Your task to perform on an android device: set the stopwatch Image 0: 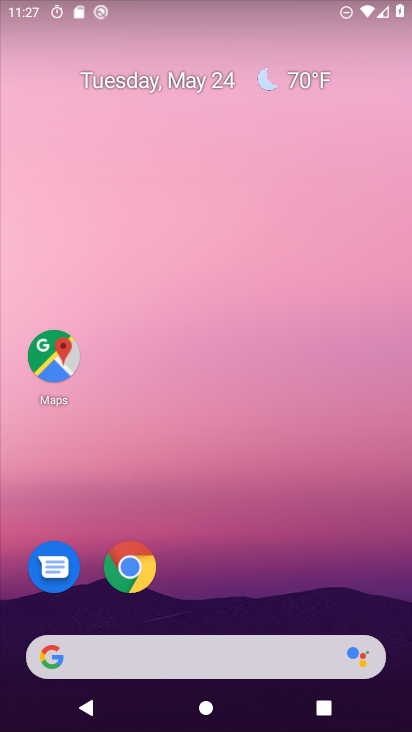
Step 0: drag from (397, 680) to (332, 178)
Your task to perform on an android device: set the stopwatch Image 1: 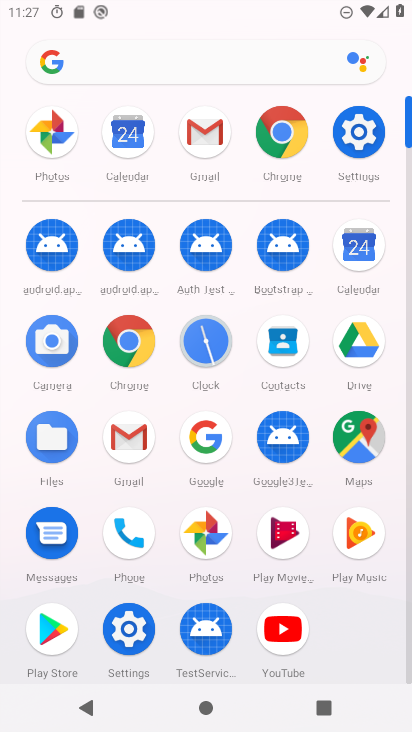
Step 1: click (362, 130)
Your task to perform on an android device: set the stopwatch Image 2: 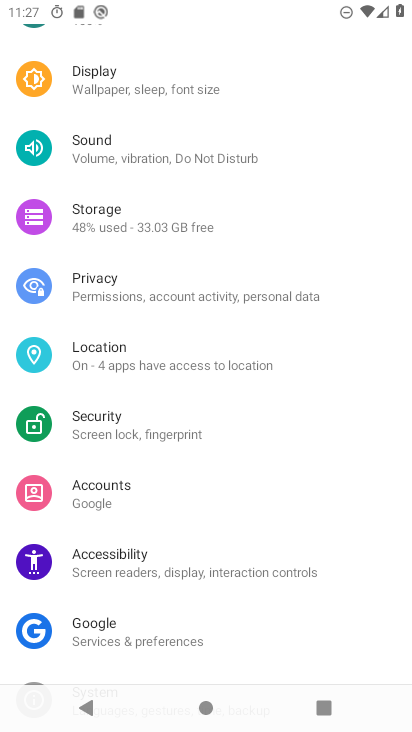
Step 2: press back button
Your task to perform on an android device: set the stopwatch Image 3: 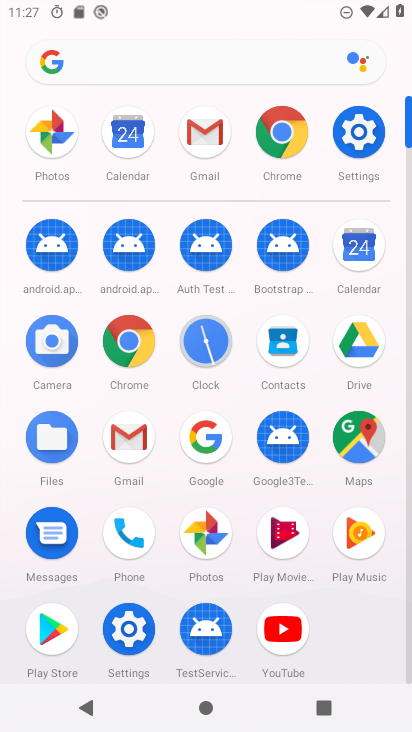
Step 3: click (199, 336)
Your task to perform on an android device: set the stopwatch Image 4: 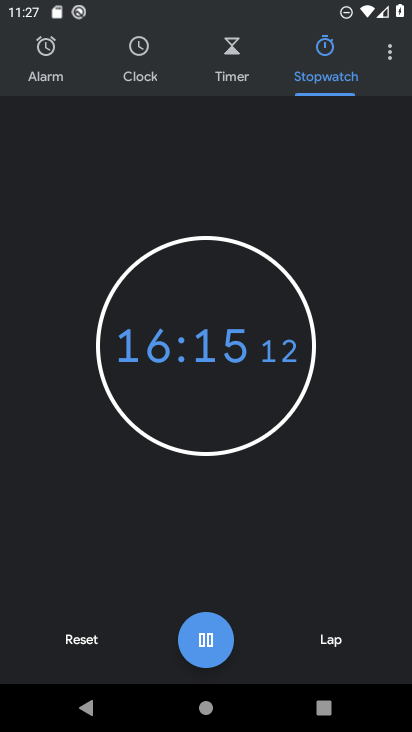
Step 4: click (93, 638)
Your task to perform on an android device: set the stopwatch Image 5: 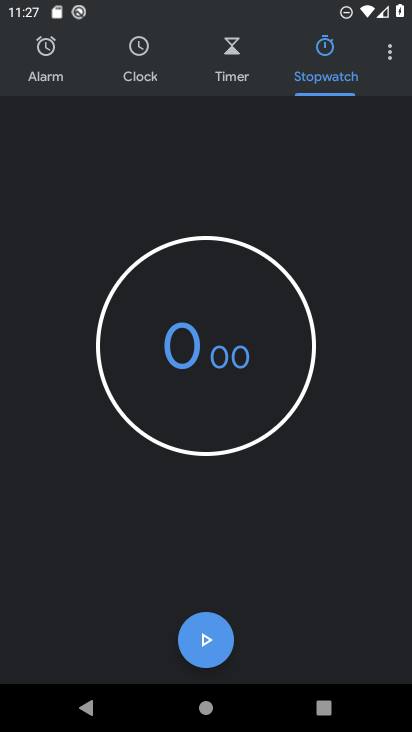
Step 5: click (211, 635)
Your task to perform on an android device: set the stopwatch Image 6: 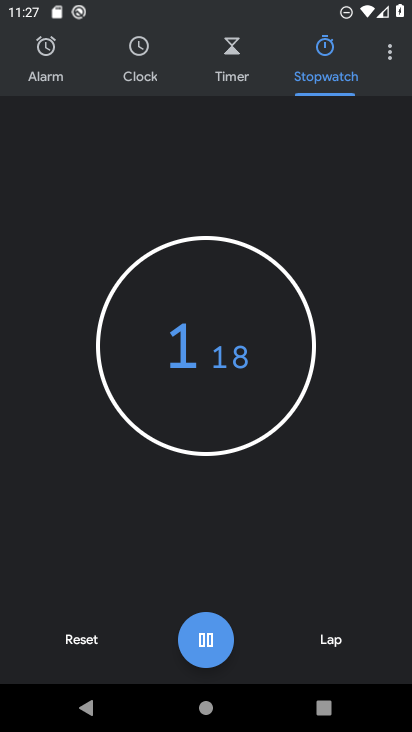
Step 6: task complete